Your task to perform on an android device: delete browsing data in the chrome app Image 0: 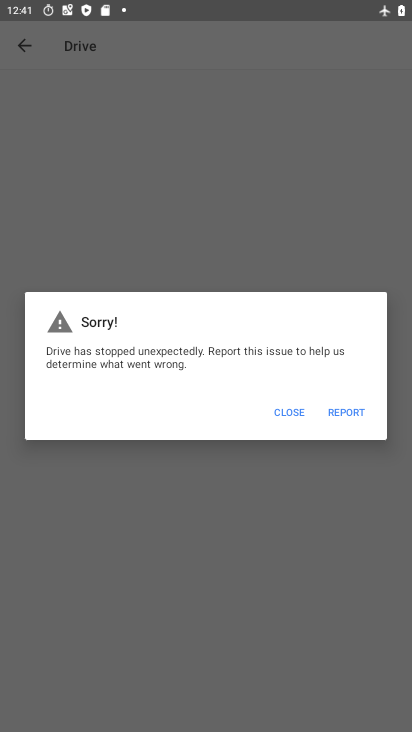
Step 0: press home button
Your task to perform on an android device: delete browsing data in the chrome app Image 1: 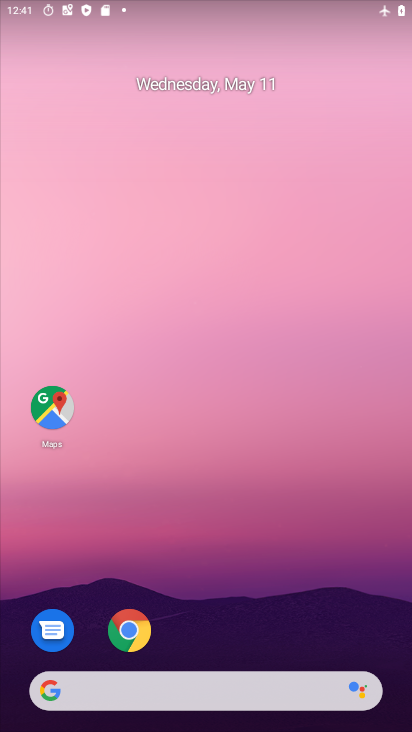
Step 1: click (119, 633)
Your task to perform on an android device: delete browsing data in the chrome app Image 2: 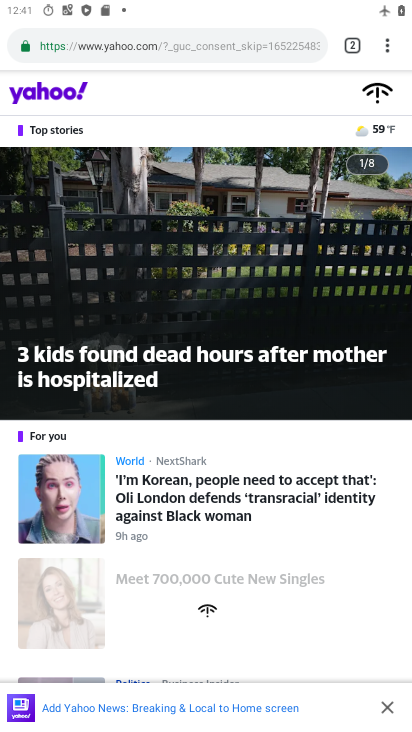
Step 2: drag from (396, 51) to (402, 290)
Your task to perform on an android device: delete browsing data in the chrome app Image 3: 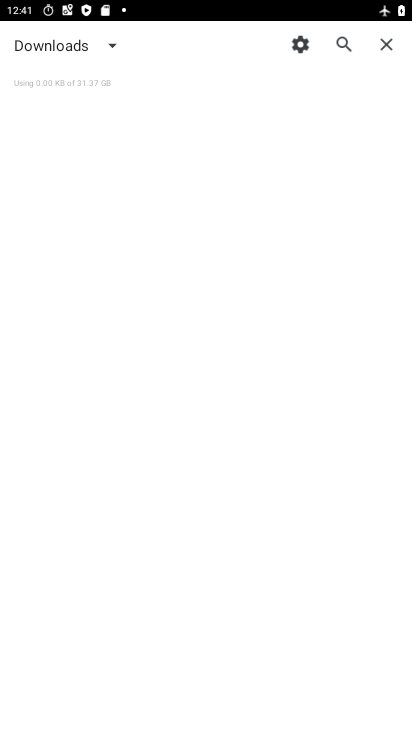
Step 3: click (391, 41)
Your task to perform on an android device: delete browsing data in the chrome app Image 4: 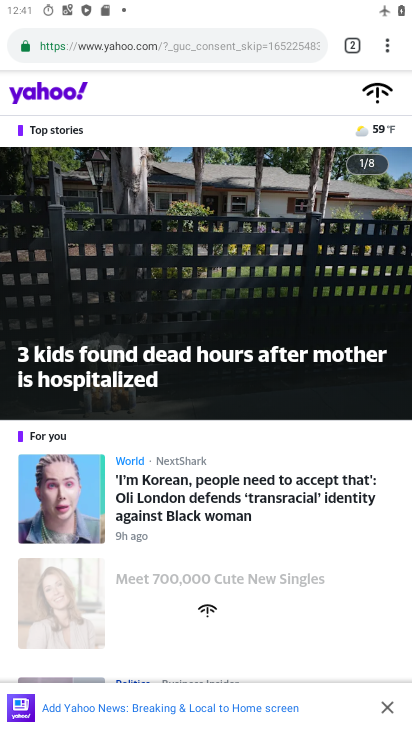
Step 4: click (386, 43)
Your task to perform on an android device: delete browsing data in the chrome app Image 5: 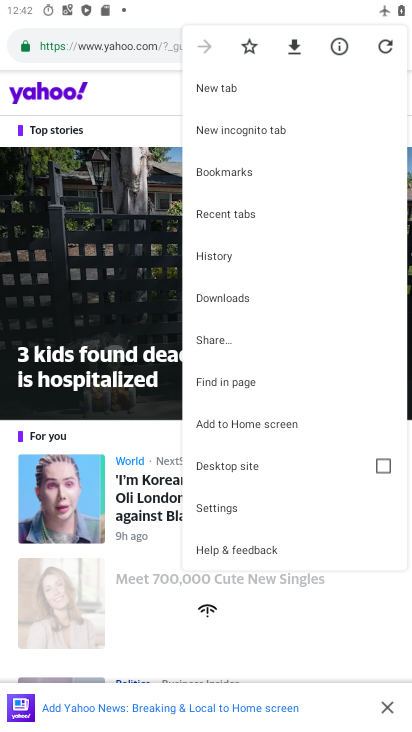
Step 5: click (232, 247)
Your task to perform on an android device: delete browsing data in the chrome app Image 6: 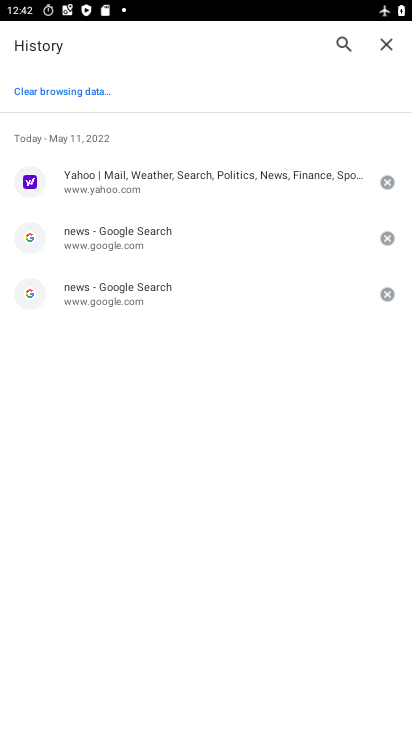
Step 6: click (50, 89)
Your task to perform on an android device: delete browsing data in the chrome app Image 7: 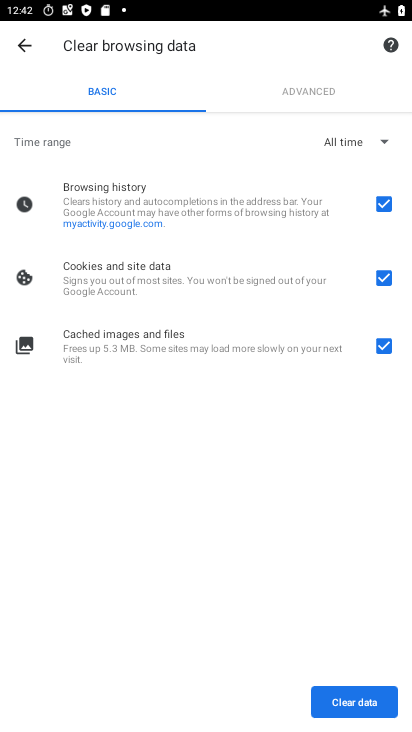
Step 7: click (367, 703)
Your task to perform on an android device: delete browsing data in the chrome app Image 8: 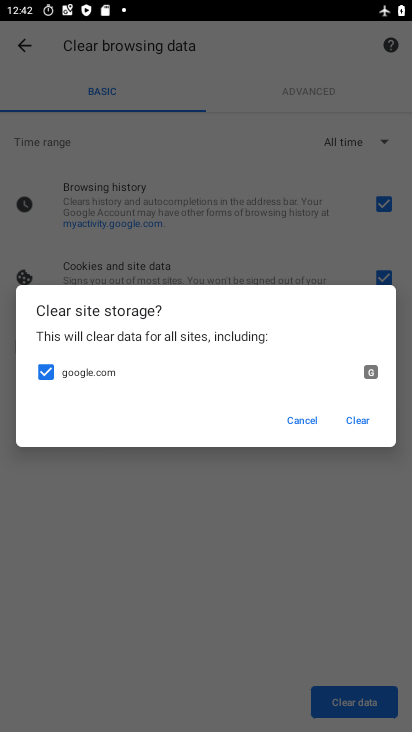
Step 8: click (358, 417)
Your task to perform on an android device: delete browsing data in the chrome app Image 9: 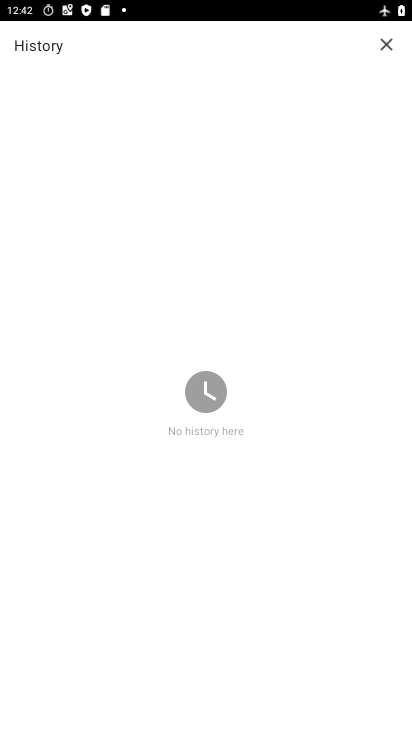
Step 9: task complete